Your task to perform on an android device: see creations saved in the google photos Image 0: 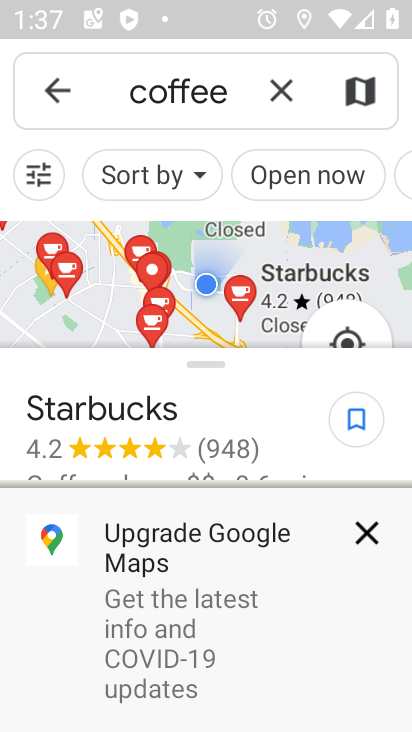
Step 0: press home button
Your task to perform on an android device: see creations saved in the google photos Image 1: 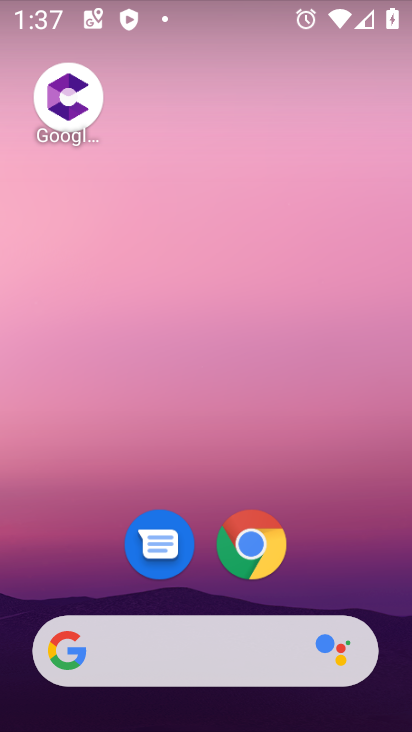
Step 1: drag from (390, 620) to (302, 61)
Your task to perform on an android device: see creations saved in the google photos Image 2: 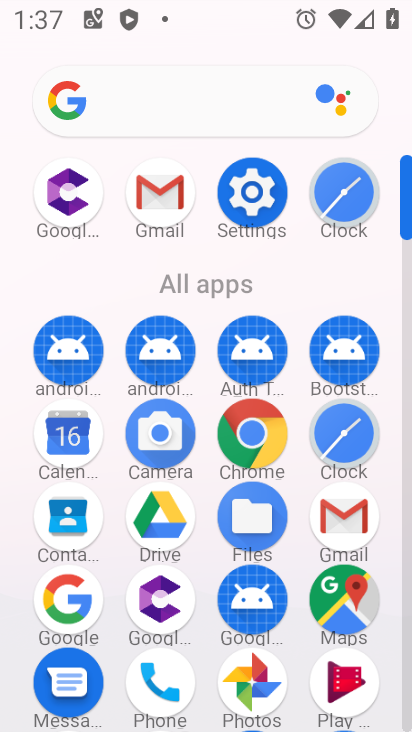
Step 2: click (406, 713)
Your task to perform on an android device: see creations saved in the google photos Image 3: 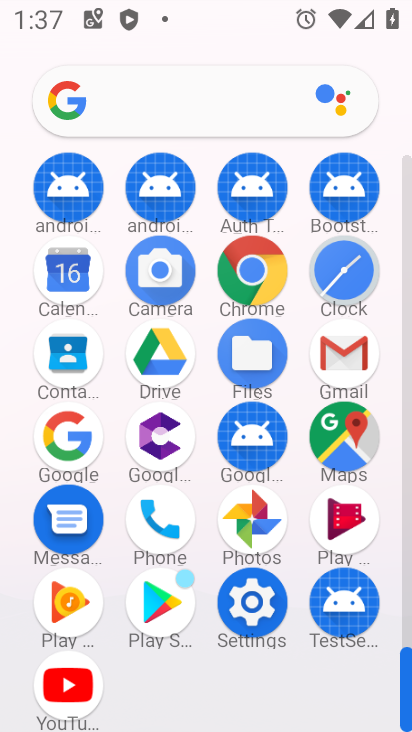
Step 3: click (252, 518)
Your task to perform on an android device: see creations saved in the google photos Image 4: 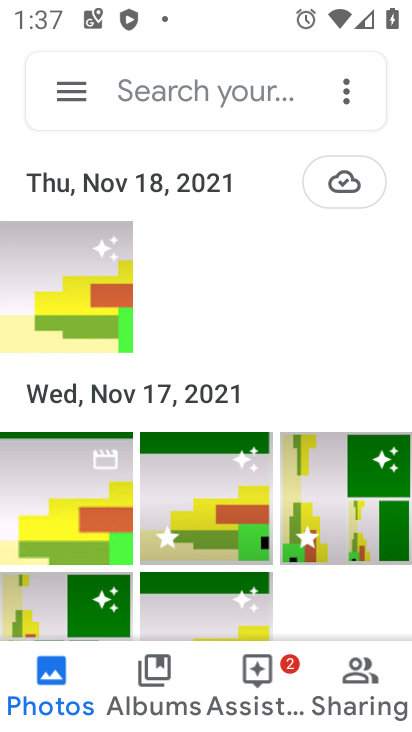
Step 4: task complete